Your task to perform on an android device: Open Wikipedia Image 0: 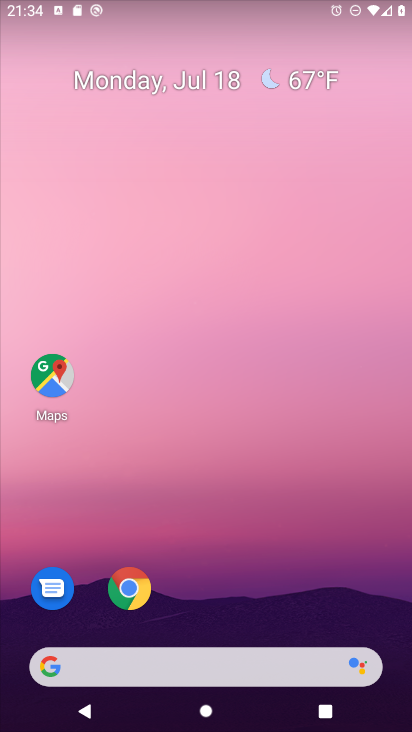
Step 0: drag from (366, 615) to (331, 116)
Your task to perform on an android device: Open Wikipedia Image 1: 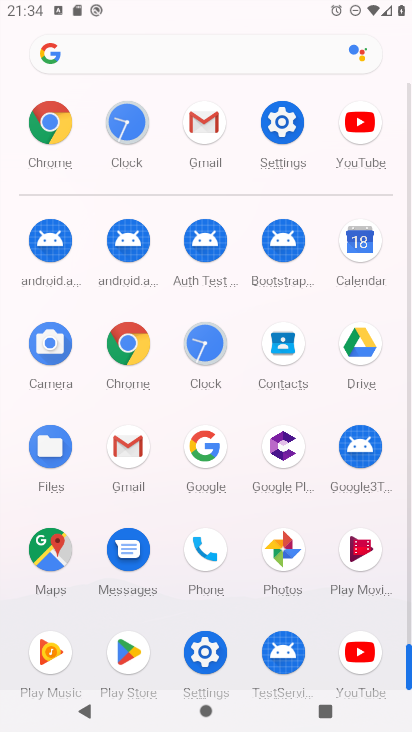
Step 1: click (129, 346)
Your task to perform on an android device: Open Wikipedia Image 2: 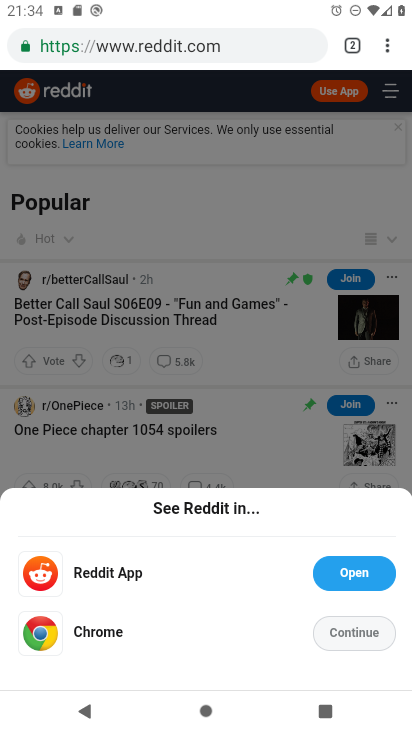
Step 2: click (259, 47)
Your task to perform on an android device: Open Wikipedia Image 3: 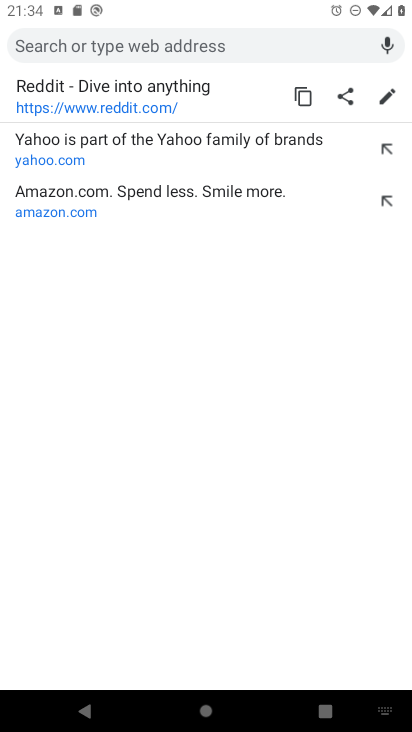
Step 3: type "wikipedia"
Your task to perform on an android device: Open Wikipedia Image 4: 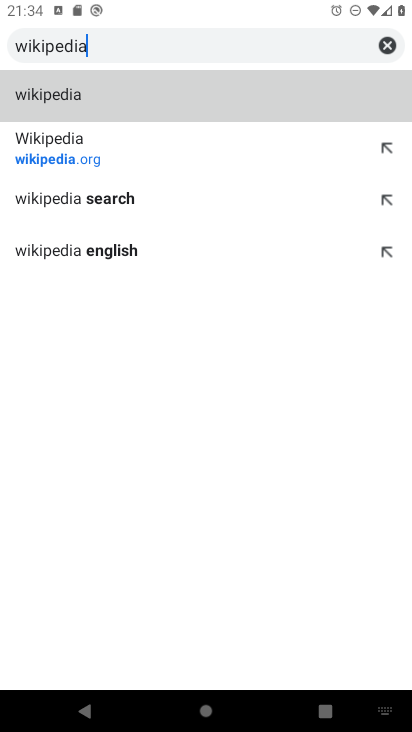
Step 4: click (67, 95)
Your task to perform on an android device: Open Wikipedia Image 5: 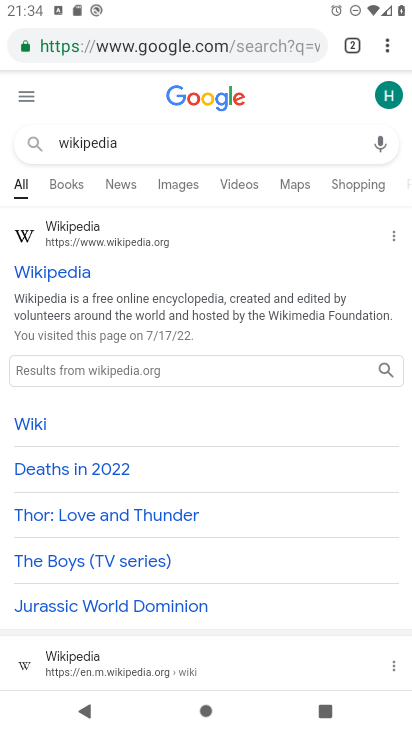
Step 5: click (56, 272)
Your task to perform on an android device: Open Wikipedia Image 6: 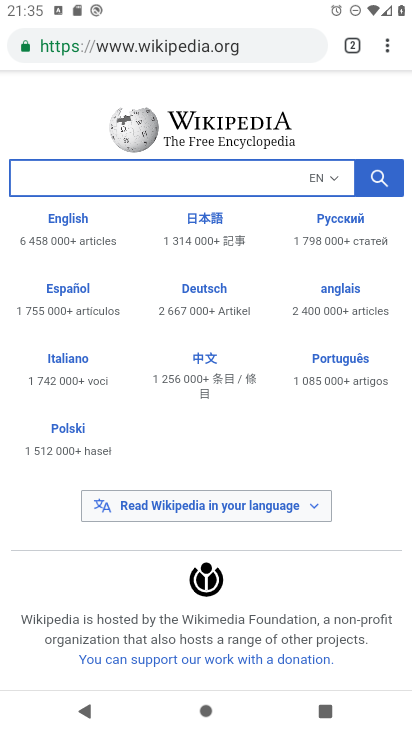
Step 6: task complete